Your task to perform on an android device: open sync settings in chrome Image 0: 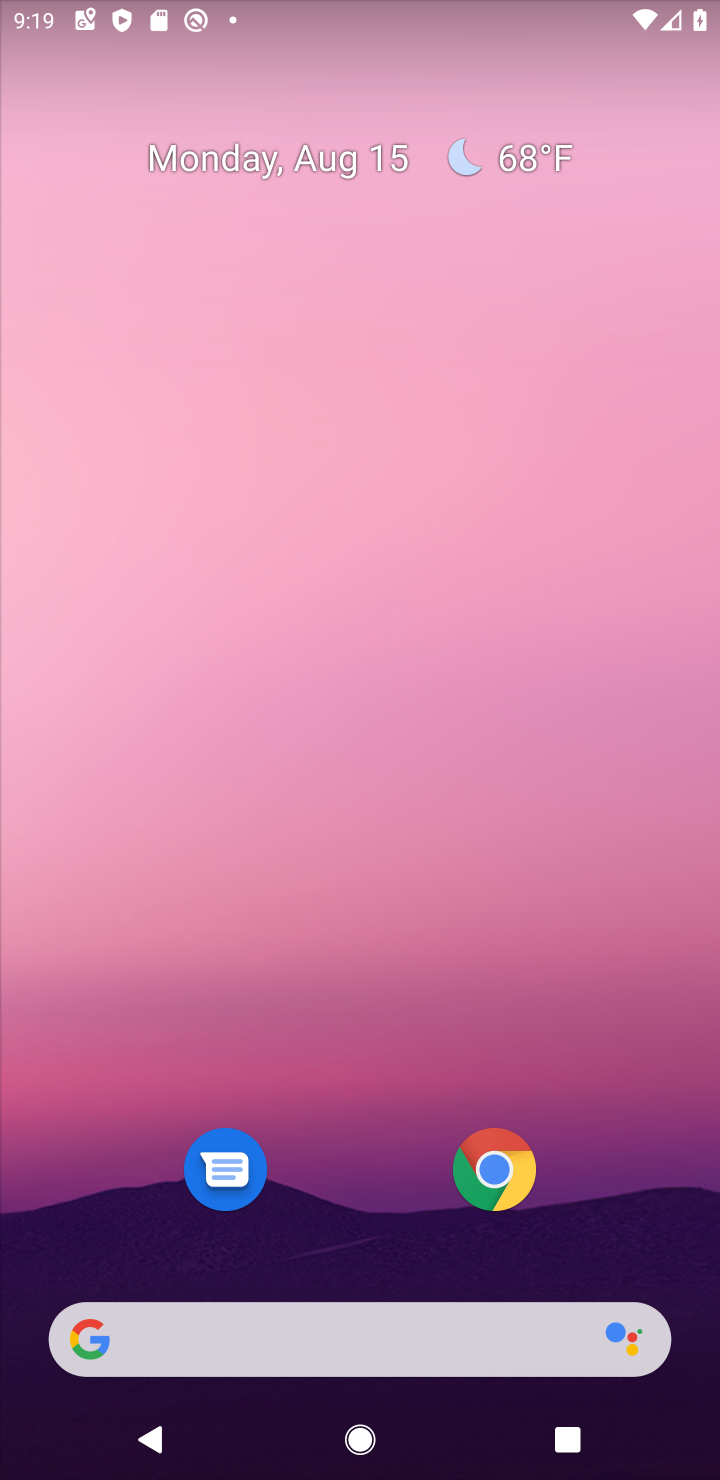
Step 0: click (485, 1174)
Your task to perform on an android device: open sync settings in chrome Image 1: 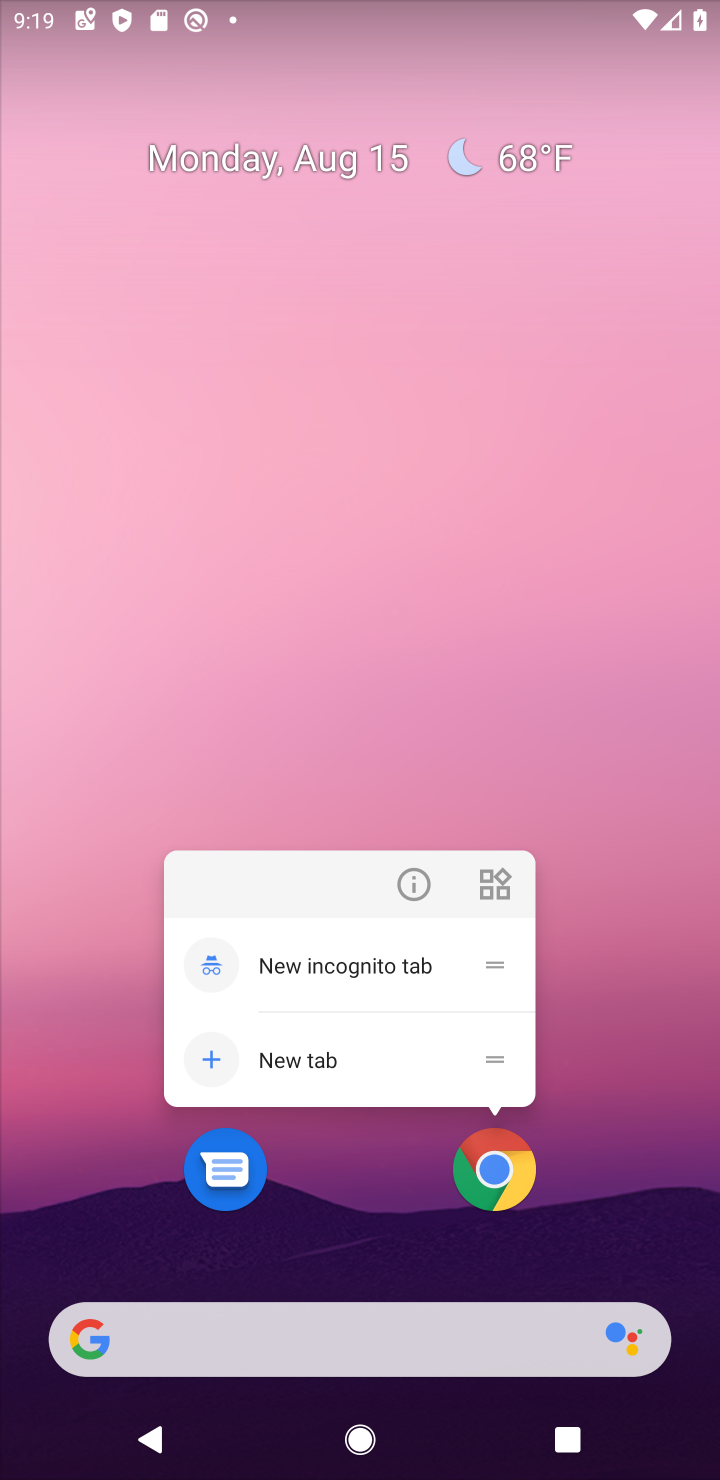
Step 1: click (490, 1174)
Your task to perform on an android device: open sync settings in chrome Image 2: 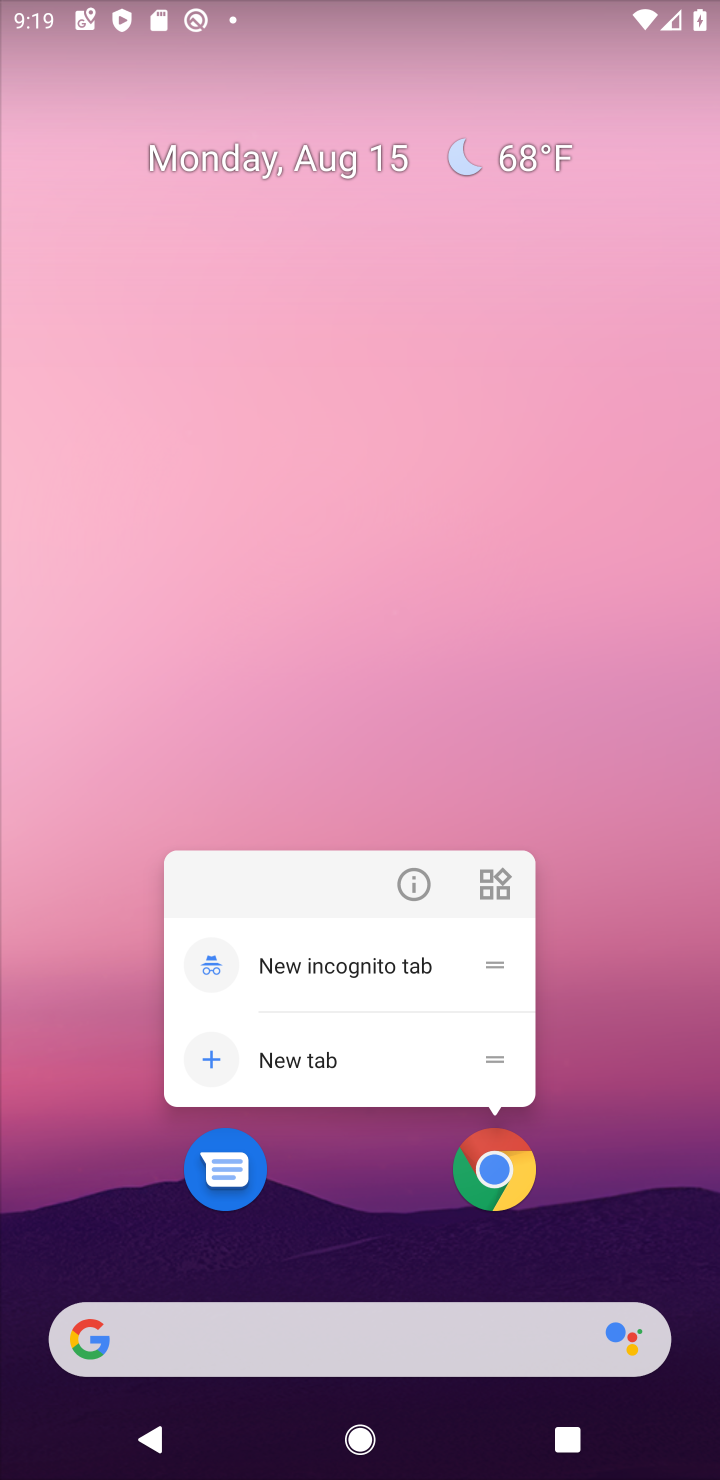
Step 2: click (490, 1187)
Your task to perform on an android device: open sync settings in chrome Image 3: 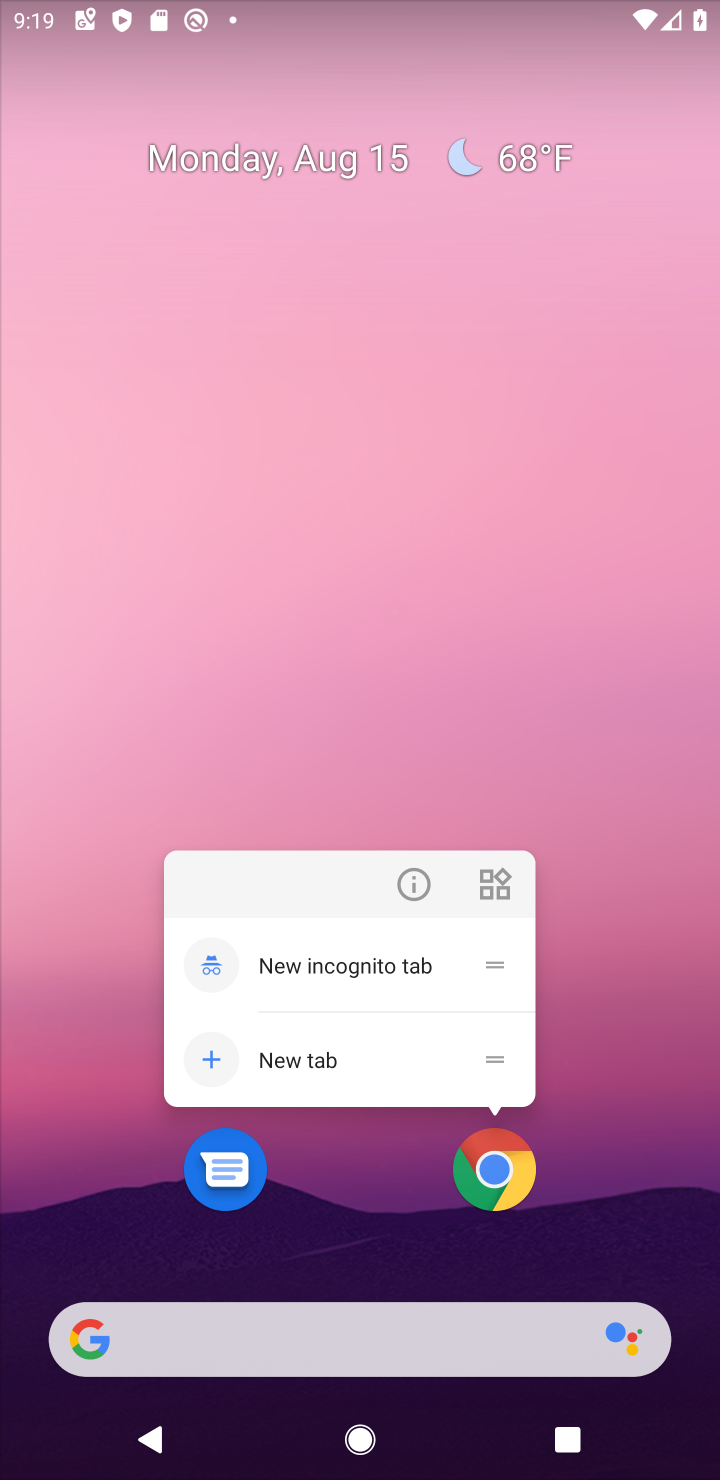
Step 3: click (490, 1187)
Your task to perform on an android device: open sync settings in chrome Image 4: 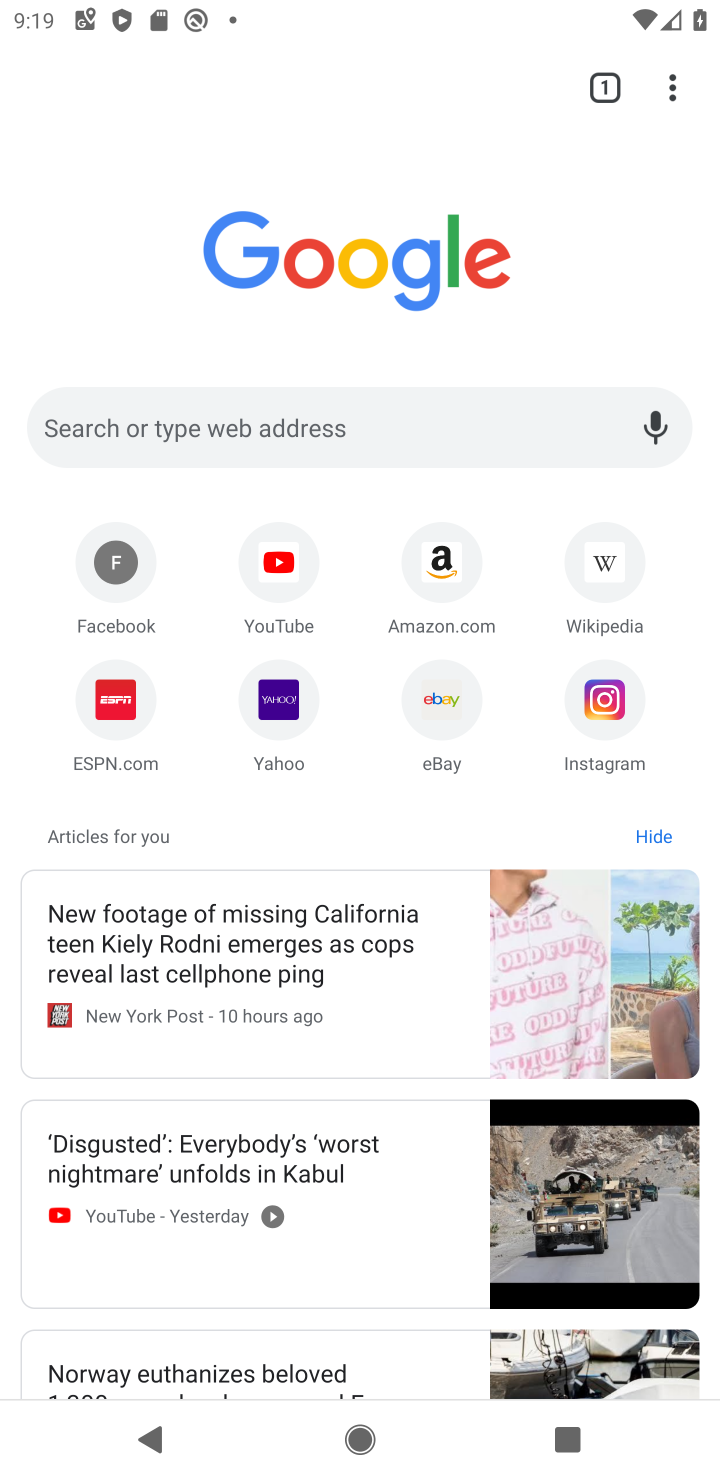
Step 4: drag from (661, 80) to (477, 752)
Your task to perform on an android device: open sync settings in chrome Image 5: 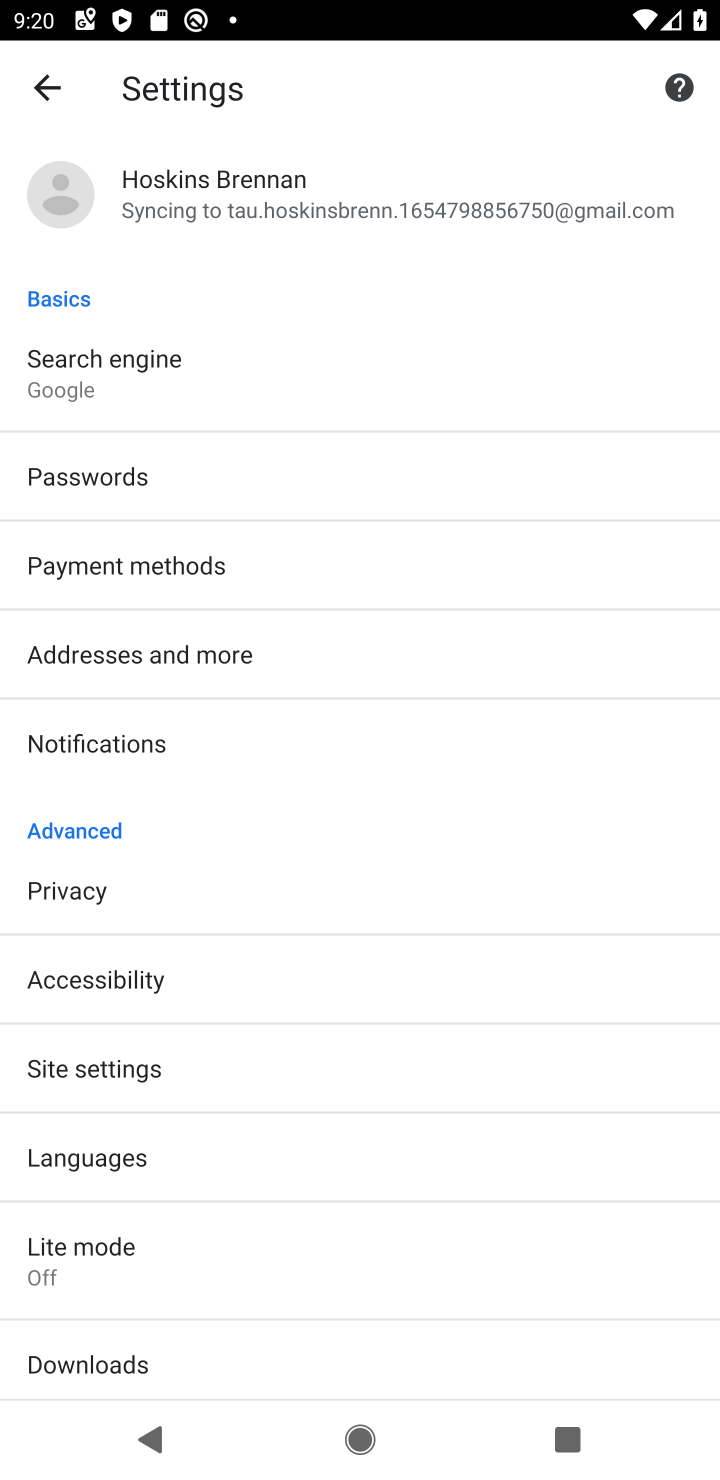
Step 5: click (381, 161)
Your task to perform on an android device: open sync settings in chrome Image 6: 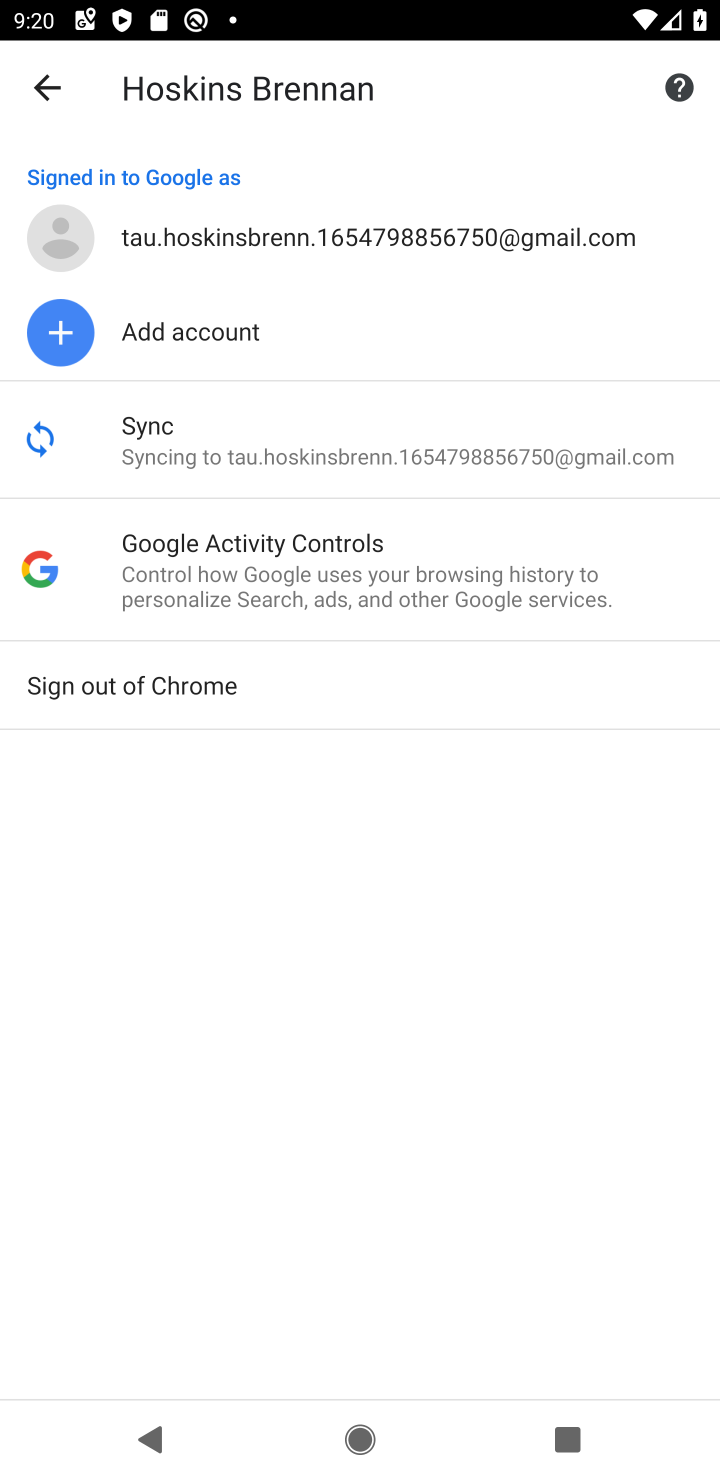
Step 6: click (292, 415)
Your task to perform on an android device: open sync settings in chrome Image 7: 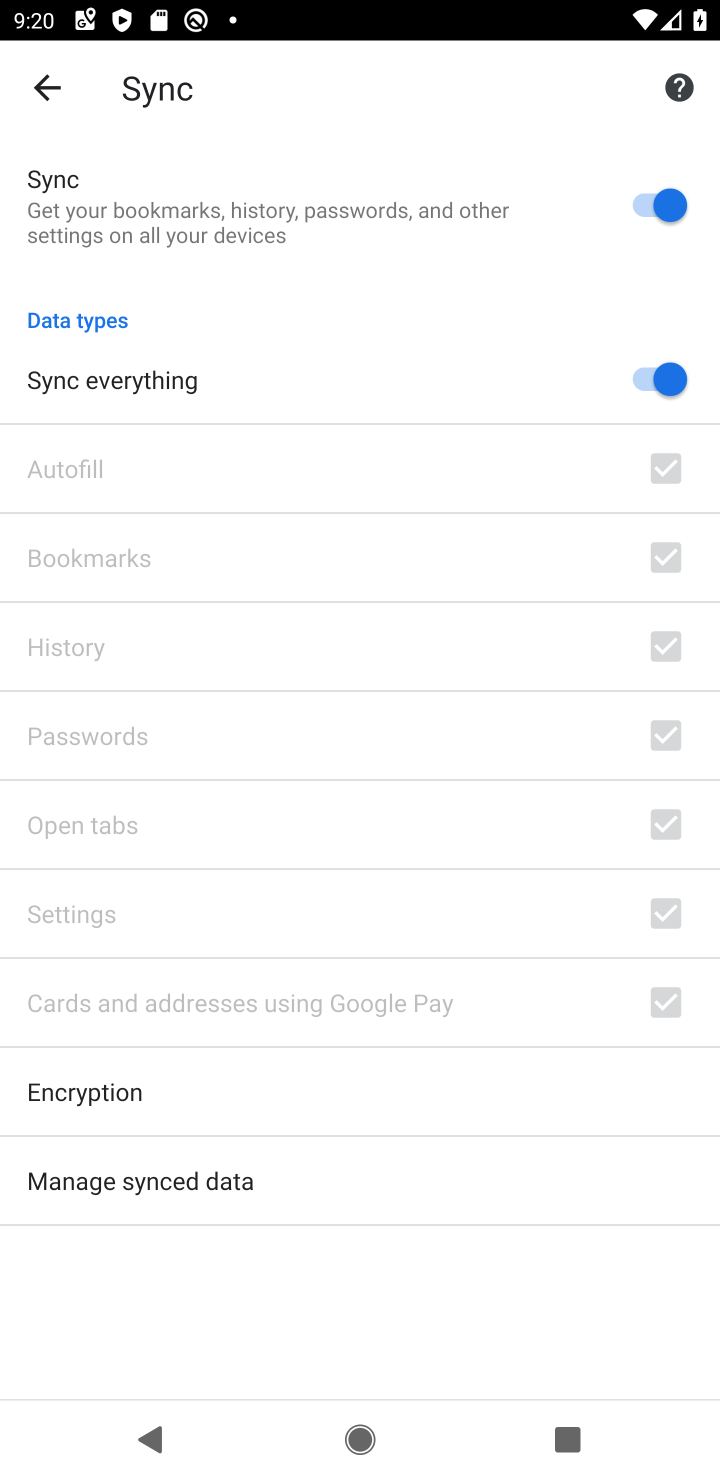
Step 7: task complete